Your task to perform on an android device: check battery use Image 0: 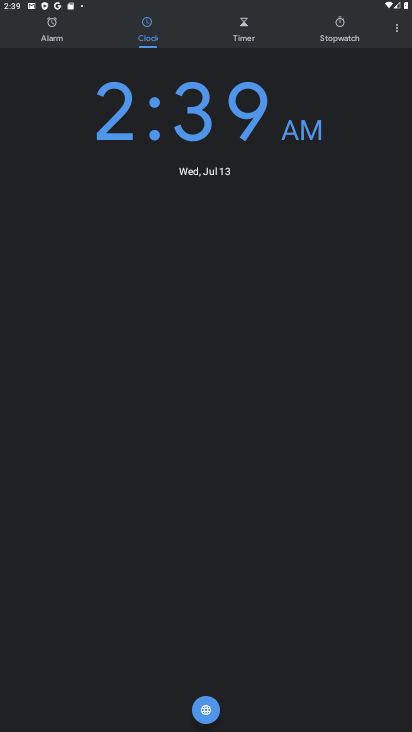
Step 0: press home button
Your task to perform on an android device: check battery use Image 1: 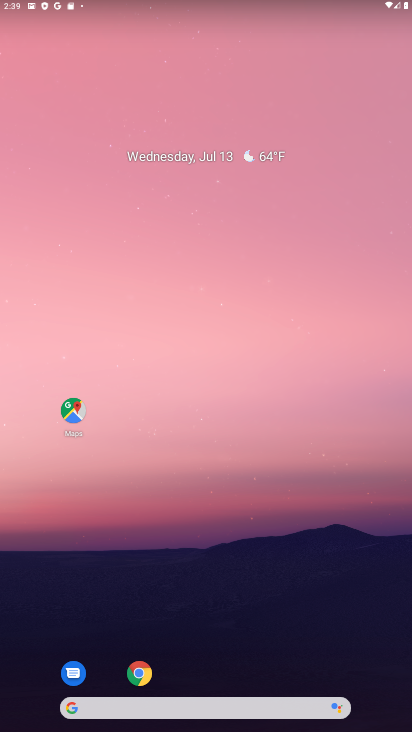
Step 1: drag from (190, 652) to (228, 116)
Your task to perform on an android device: check battery use Image 2: 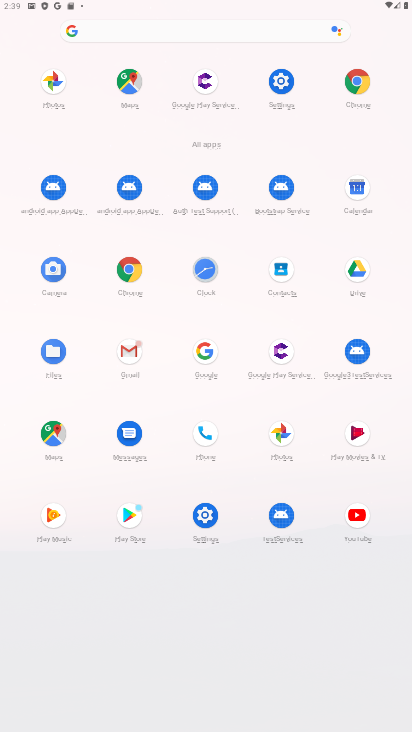
Step 2: click (214, 522)
Your task to perform on an android device: check battery use Image 3: 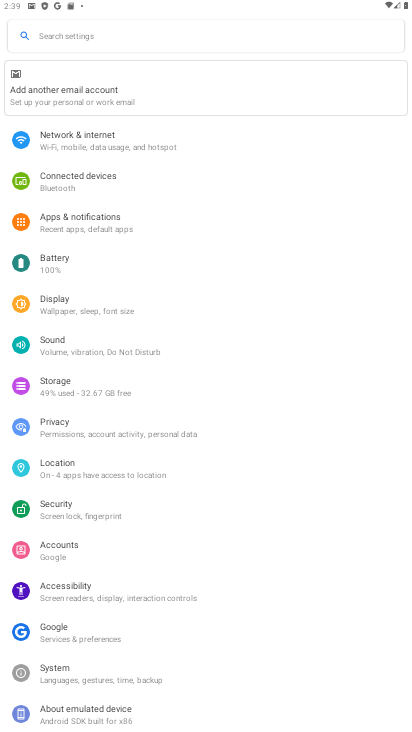
Step 3: click (54, 257)
Your task to perform on an android device: check battery use Image 4: 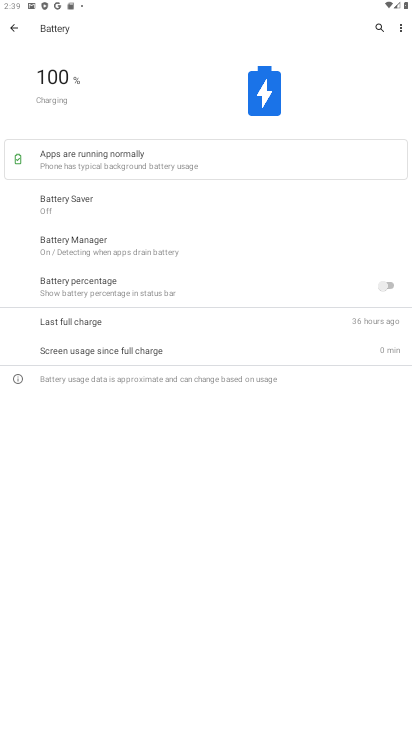
Step 4: task complete